Your task to perform on an android device: change notifications settings Image 0: 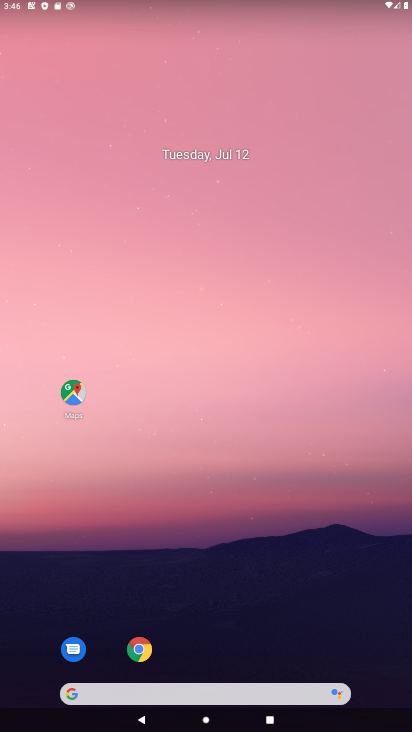
Step 0: press home button
Your task to perform on an android device: change notifications settings Image 1: 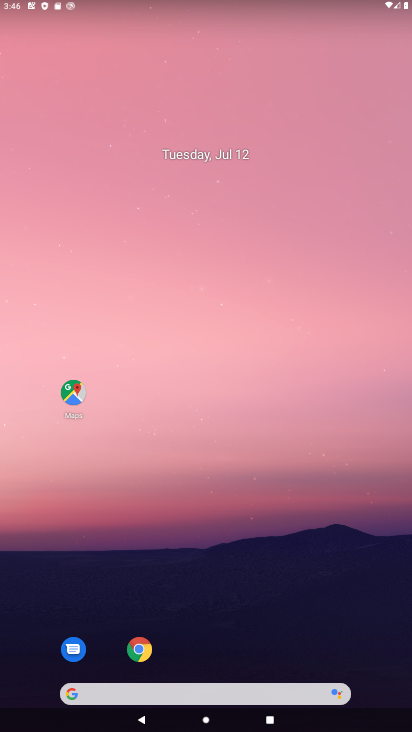
Step 1: drag from (215, 662) to (202, 26)
Your task to perform on an android device: change notifications settings Image 2: 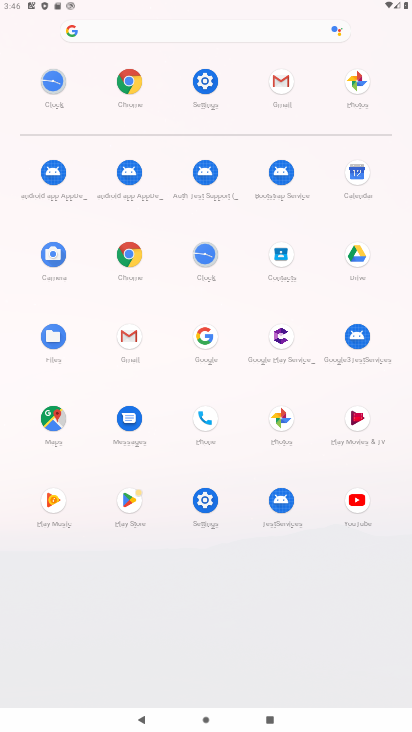
Step 2: click (205, 77)
Your task to perform on an android device: change notifications settings Image 3: 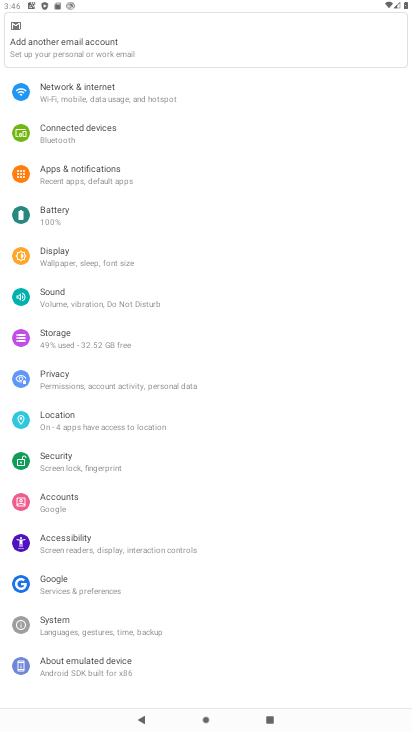
Step 3: click (148, 166)
Your task to perform on an android device: change notifications settings Image 4: 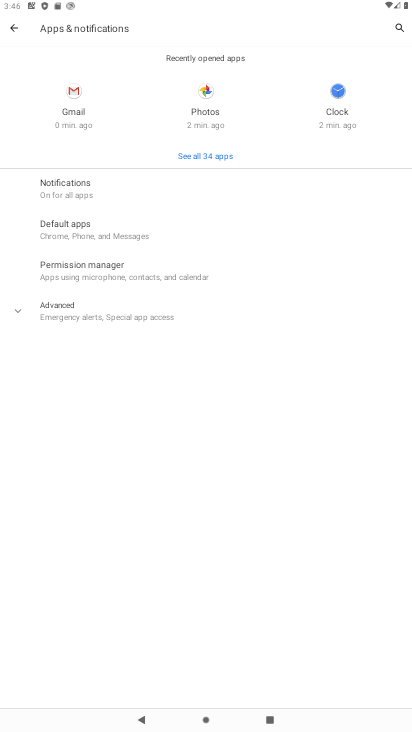
Step 4: click (95, 184)
Your task to perform on an android device: change notifications settings Image 5: 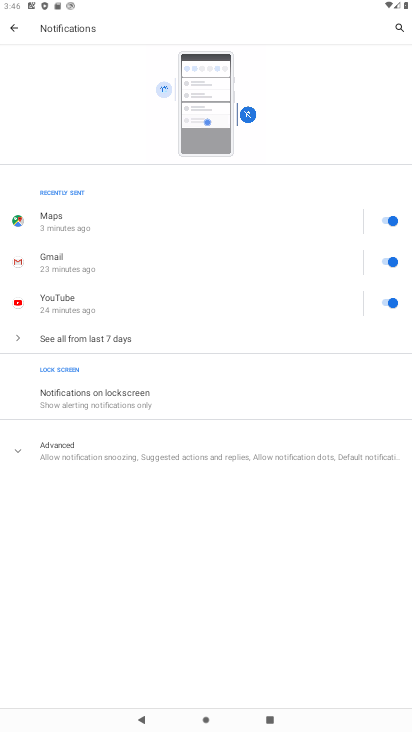
Step 5: click (390, 214)
Your task to perform on an android device: change notifications settings Image 6: 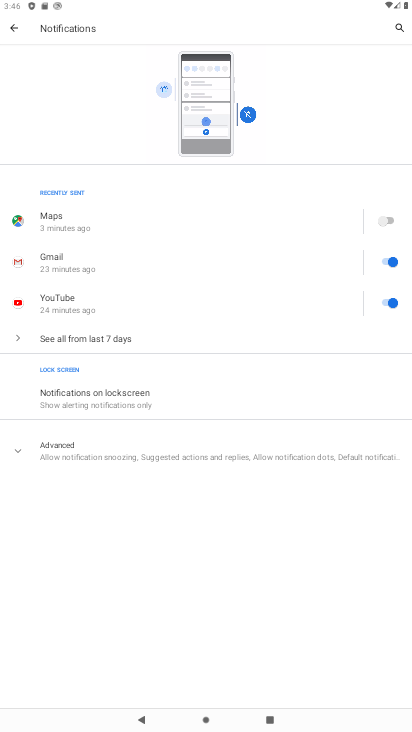
Step 6: click (389, 259)
Your task to perform on an android device: change notifications settings Image 7: 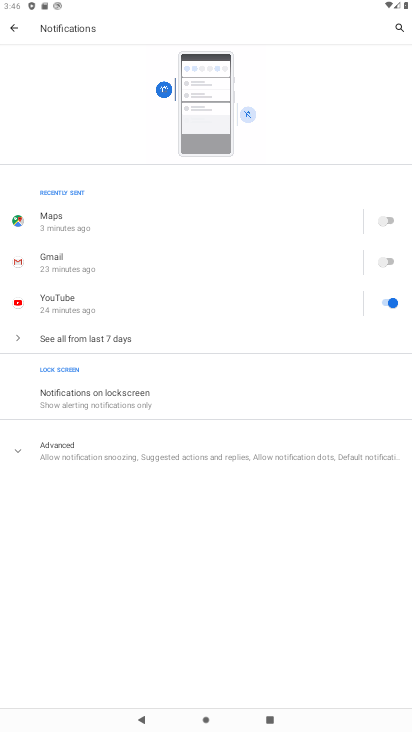
Step 7: click (389, 296)
Your task to perform on an android device: change notifications settings Image 8: 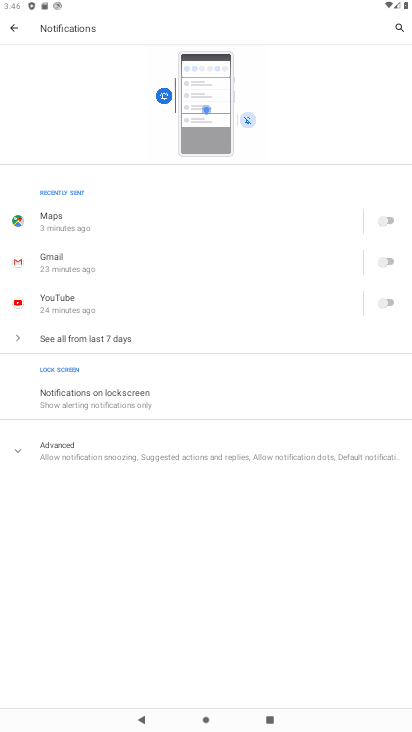
Step 8: click (13, 444)
Your task to perform on an android device: change notifications settings Image 9: 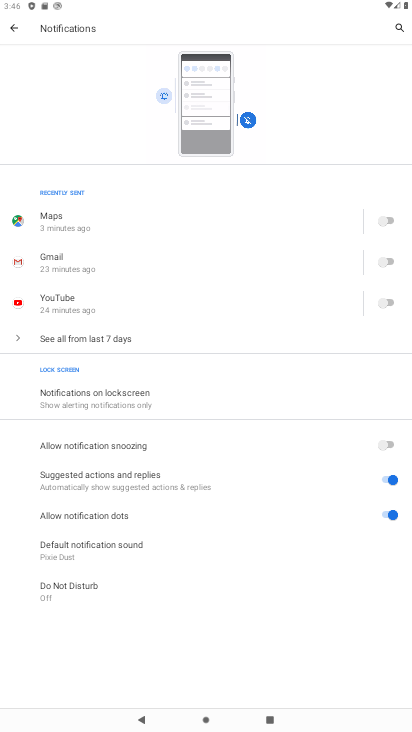
Step 9: click (389, 476)
Your task to perform on an android device: change notifications settings Image 10: 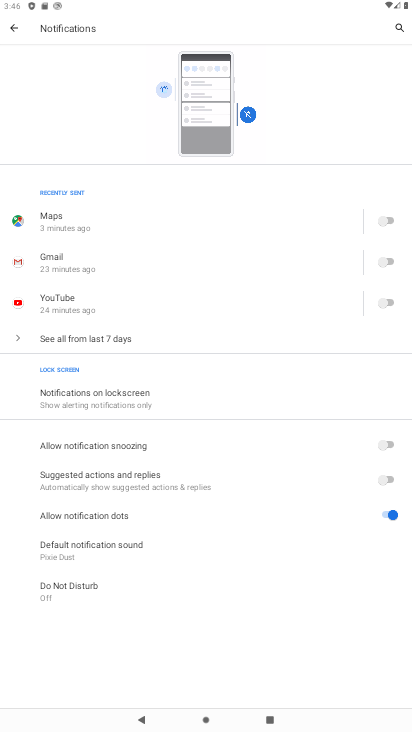
Step 10: click (387, 510)
Your task to perform on an android device: change notifications settings Image 11: 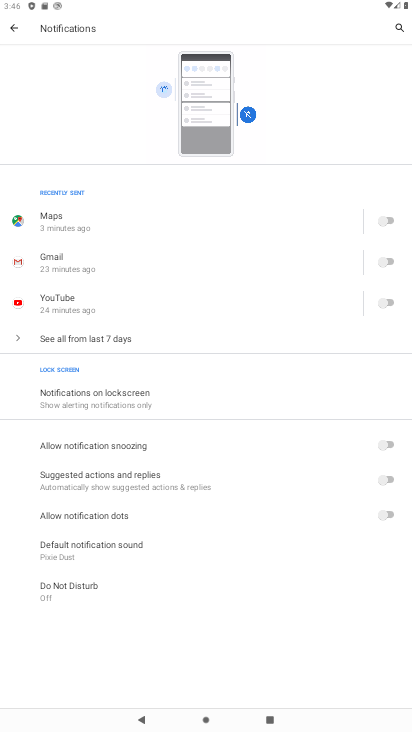
Step 11: task complete